Your task to perform on an android device: Clear the shopping cart on newegg.com. Add macbook air to the cart on newegg.com Image 0: 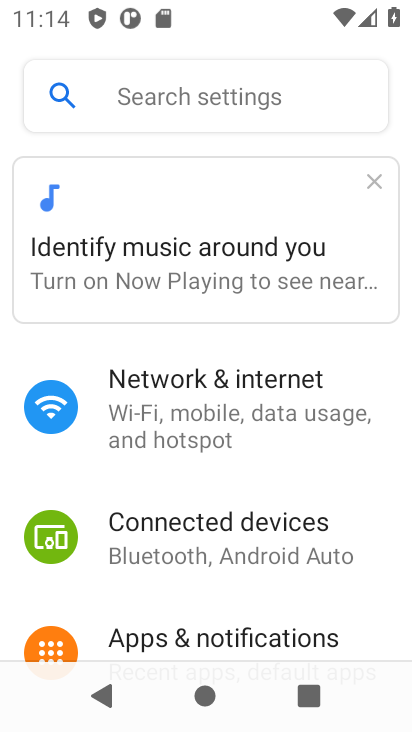
Step 0: press home button
Your task to perform on an android device: Clear the shopping cart on newegg.com. Add macbook air to the cart on newegg.com Image 1: 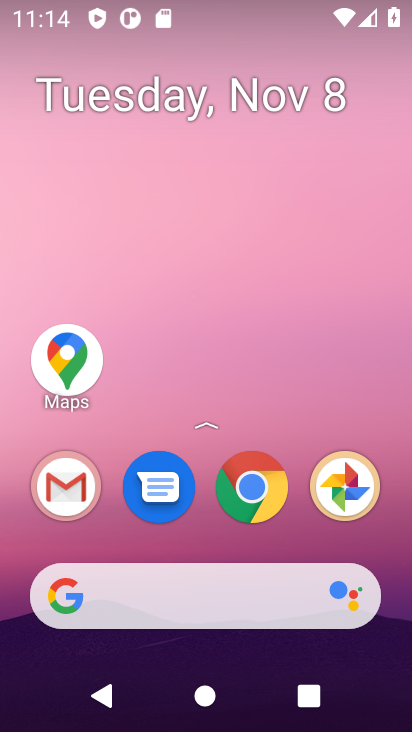
Step 1: click (149, 563)
Your task to perform on an android device: Clear the shopping cart on newegg.com. Add macbook air to the cart on newegg.com Image 2: 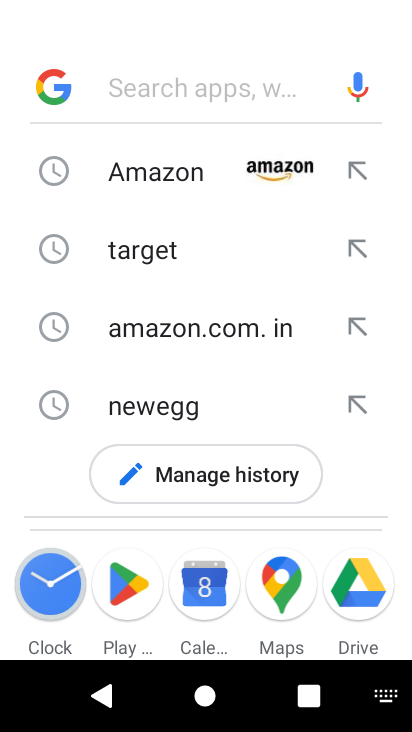
Step 2: click (172, 596)
Your task to perform on an android device: Clear the shopping cart on newegg.com. Add macbook air to the cart on newegg.com Image 3: 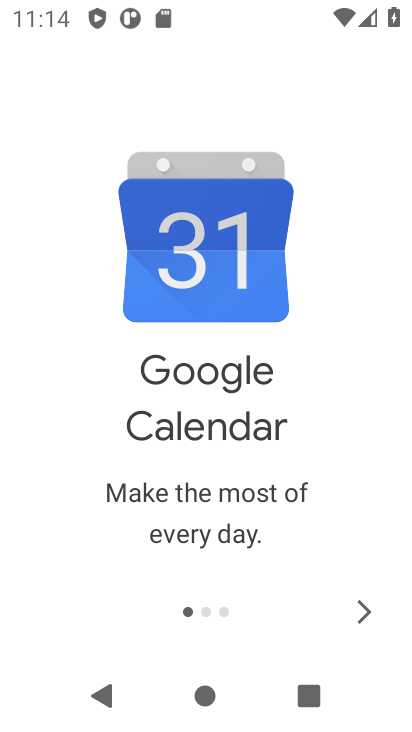
Step 3: press back button
Your task to perform on an android device: Clear the shopping cart on newegg.com. Add macbook air to the cart on newegg.com Image 4: 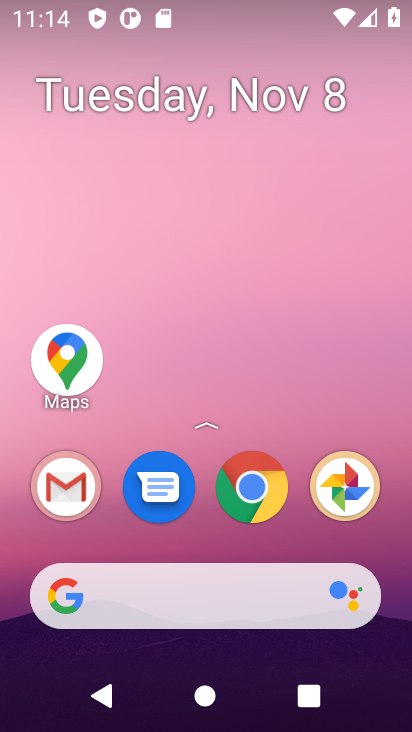
Step 4: click (176, 612)
Your task to perform on an android device: Clear the shopping cart on newegg.com. Add macbook air to the cart on newegg.com Image 5: 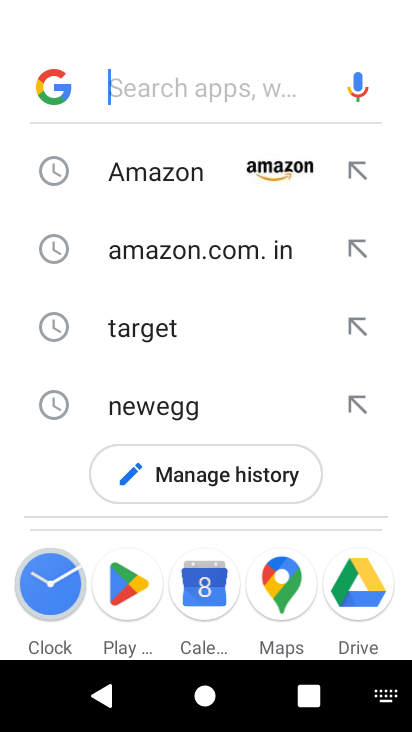
Step 5: click (179, 412)
Your task to perform on an android device: Clear the shopping cart on newegg.com. Add macbook air to the cart on newegg.com Image 6: 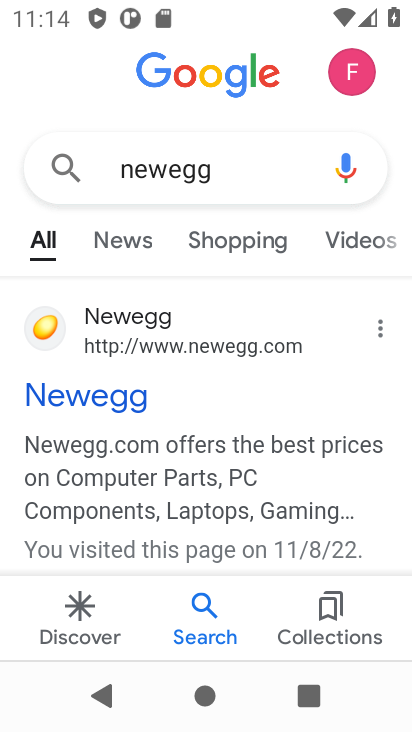
Step 6: click (96, 386)
Your task to perform on an android device: Clear the shopping cart on newegg.com. Add macbook air to the cart on newegg.com Image 7: 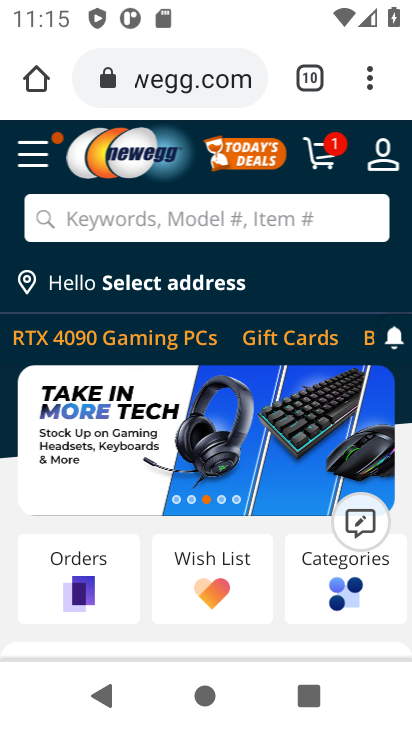
Step 7: click (224, 212)
Your task to perform on an android device: Clear the shopping cart on newegg.com. Add macbook air to the cart on newegg.com Image 8: 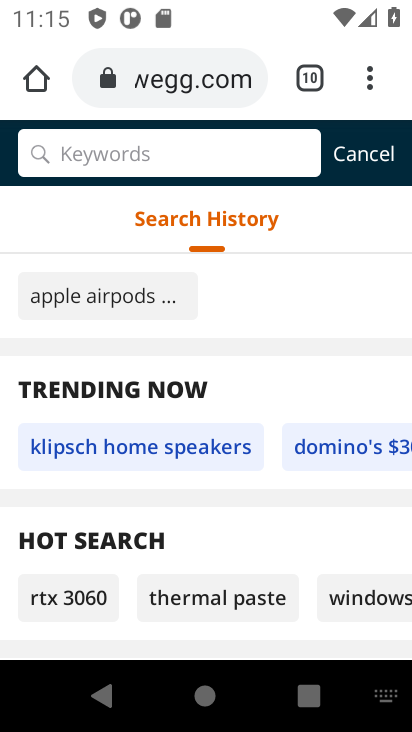
Step 8: type "macbook air"
Your task to perform on an android device: Clear the shopping cart on newegg.com. Add macbook air to the cart on newegg.com Image 9: 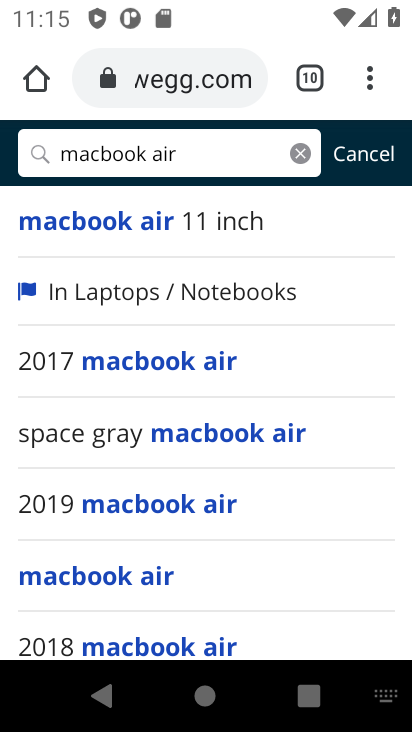
Step 9: click (213, 499)
Your task to perform on an android device: Clear the shopping cart on newegg.com. Add macbook air to the cart on newegg.com Image 10: 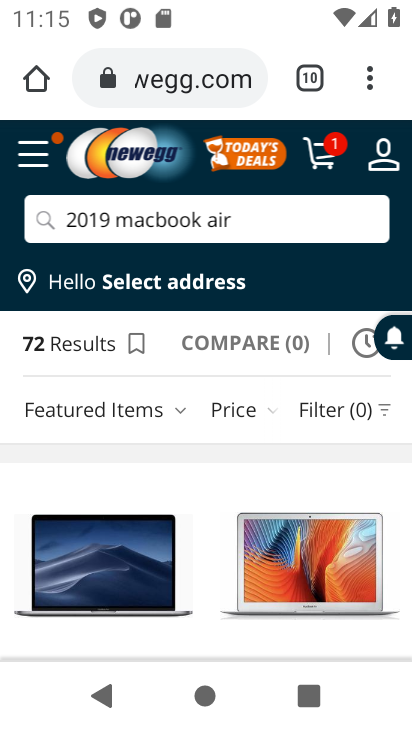
Step 10: click (111, 581)
Your task to perform on an android device: Clear the shopping cart on newegg.com. Add macbook air to the cart on newegg.com Image 11: 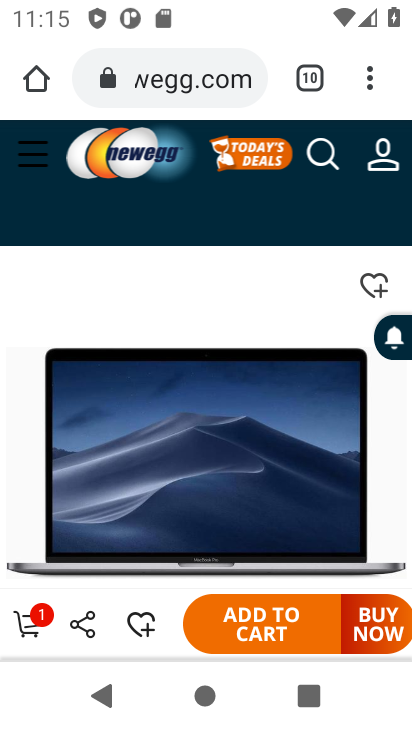
Step 11: click (264, 634)
Your task to perform on an android device: Clear the shopping cart on newegg.com. Add macbook air to the cart on newegg.com Image 12: 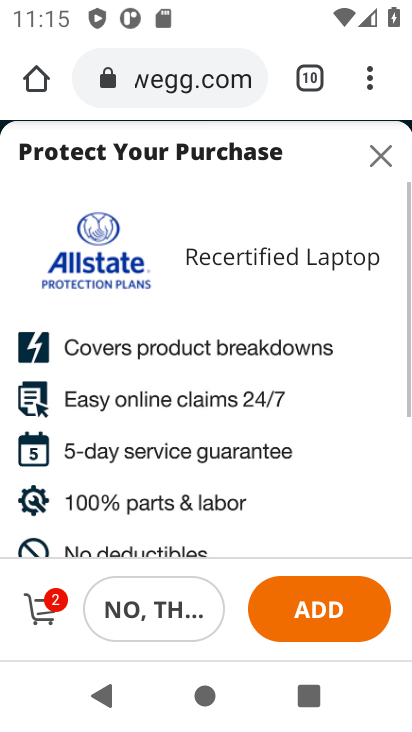
Step 12: task complete